Your task to perform on an android device: check battery use Image 0: 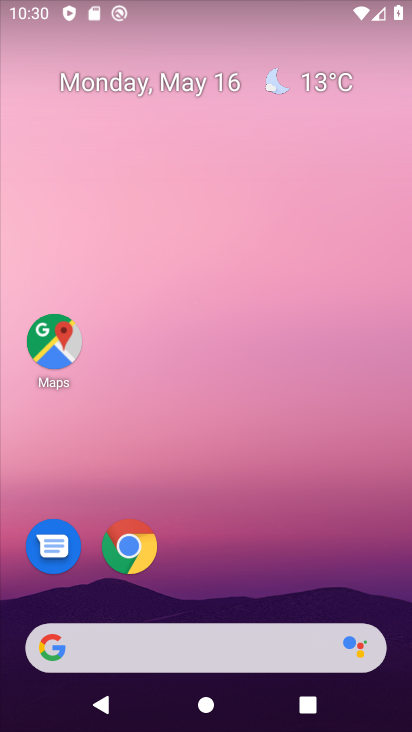
Step 0: drag from (252, 573) to (236, 97)
Your task to perform on an android device: check battery use Image 1: 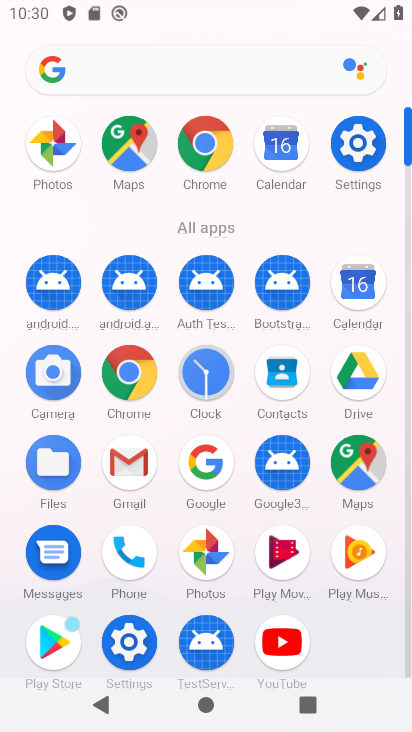
Step 1: click (379, 141)
Your task to perform on an android device: check battery use Image 2: 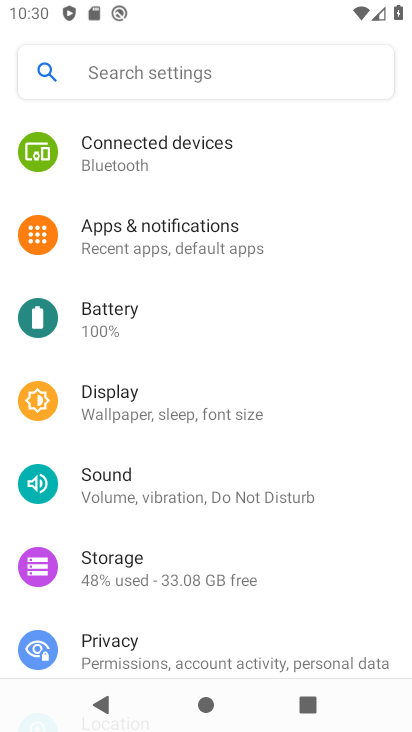
Step 2: click (139, 332)
Your task to perform on an android device: check battery use Image 3: 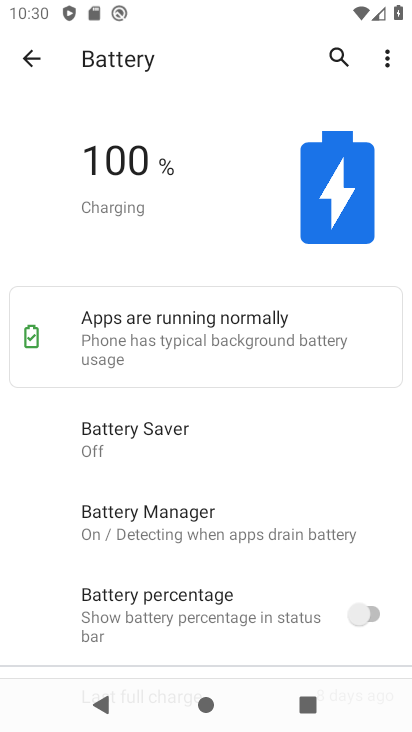
Step 3: task complete